Your task to perform on an android device: toggle pop-ups in chrome Image 0: 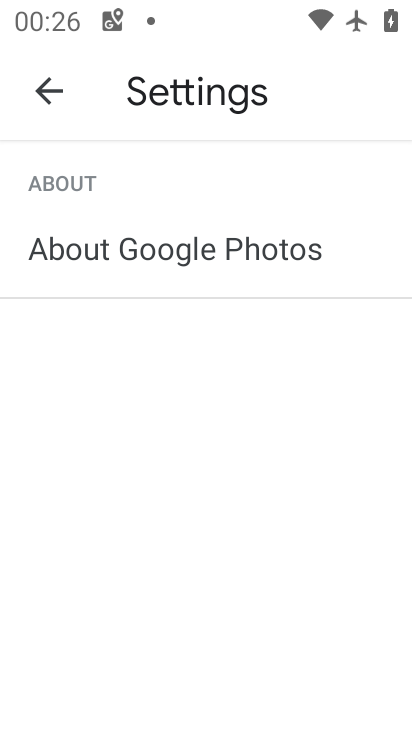
Step 0: press home button
Your task to perform on an android device: toggle pop-ups in chrome Image 1: 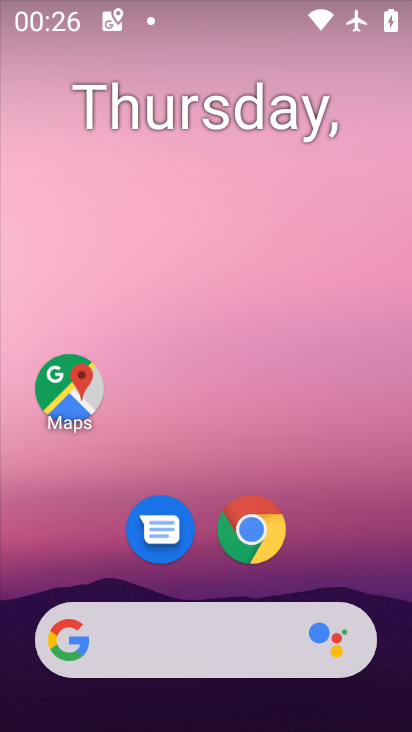
Step 1: click (256, 527)
Your task to perform on an android device: toggle pop-ups in chrome Image 2: 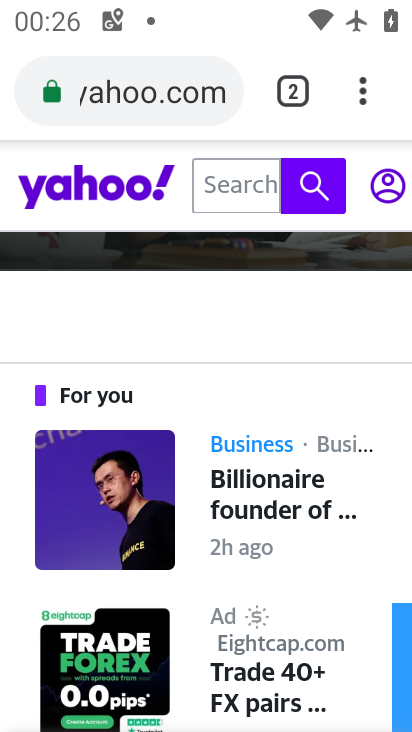
Step 2: click (359, 99)
Your task to perform on an android device: toggle pop-ups in chrome Image 3: 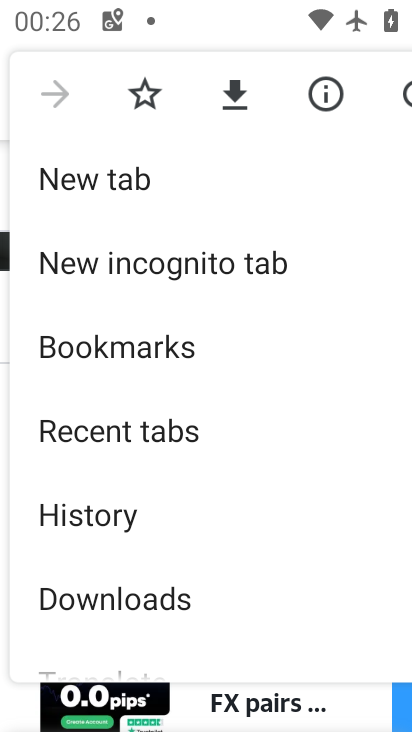
Step 3: drag from (247, 568) to (271, 215)
Your task to perform on an android device: toggle pop-ups in chrome Image 4: 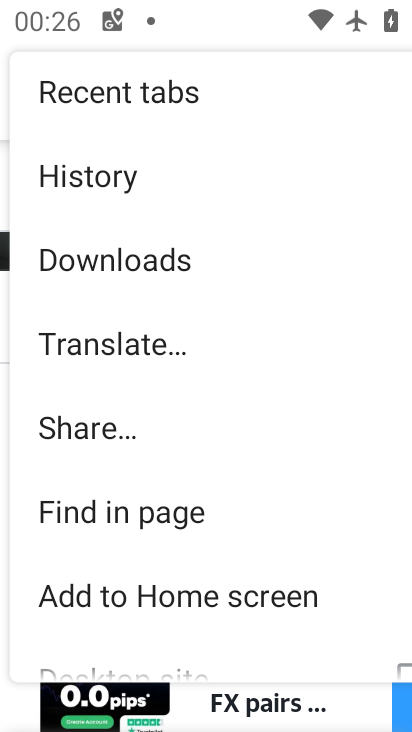
Step 4: drag from (300, 557) to (289, 223)
Your task to perform on an android device: toggle pop-ups in chrome Image 5: 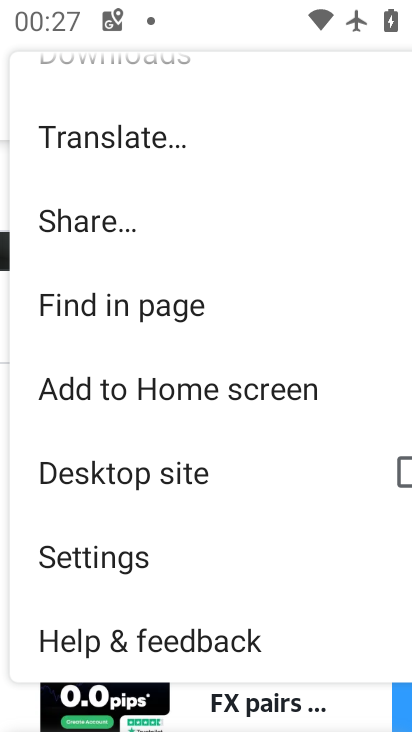
Step 5: click (115, 557)
Your task to perform on an android device: toggle pop-ups in chrome Image 6: 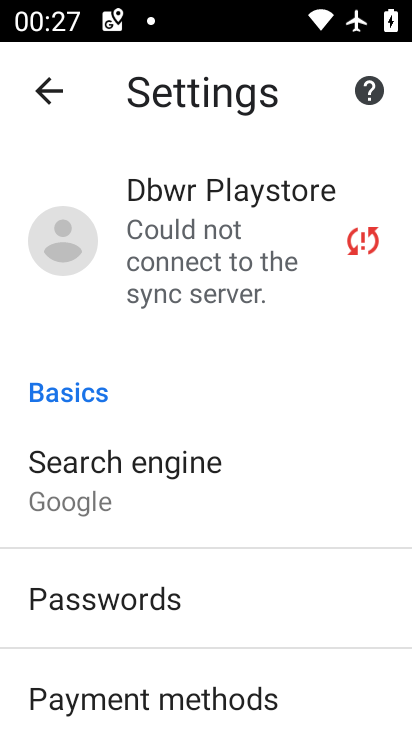
Step 6: drag from (264, 644) to (256, 255)
Your task to perform on an android device: toggle pop-ups in chrome Image 7: 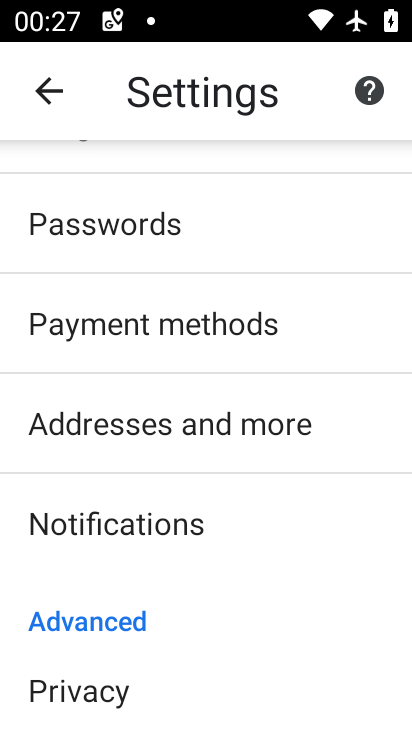
Step 7: drag from (294, 612) to (327, 247)
Your task to perform on an android device: toggle pop-ups in chrome Image 8: 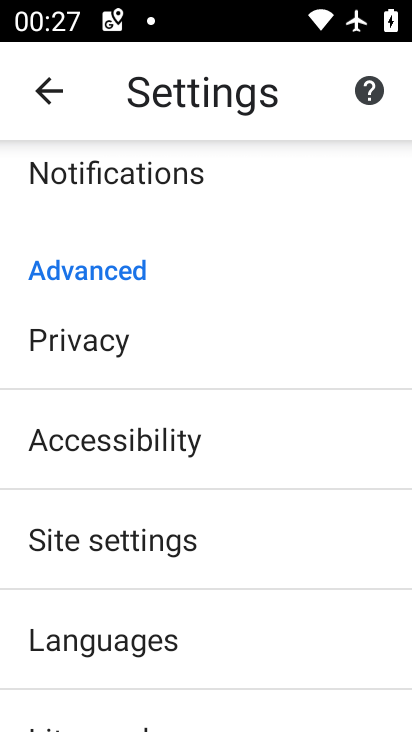
Step 8: click (111, 548)
Your task to perform on an android device: toggle pop-ups in chrome Image 9: 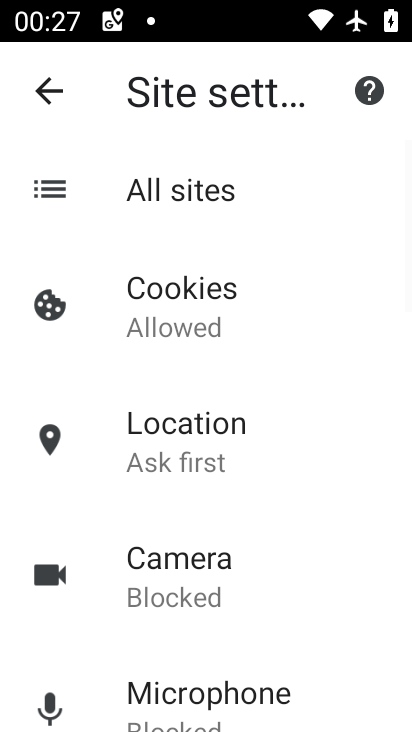
Step 9: drag from (309, 674) to (272, 270)
Your task to perform on an android device: toggle pop-ups in chrome Image 10: 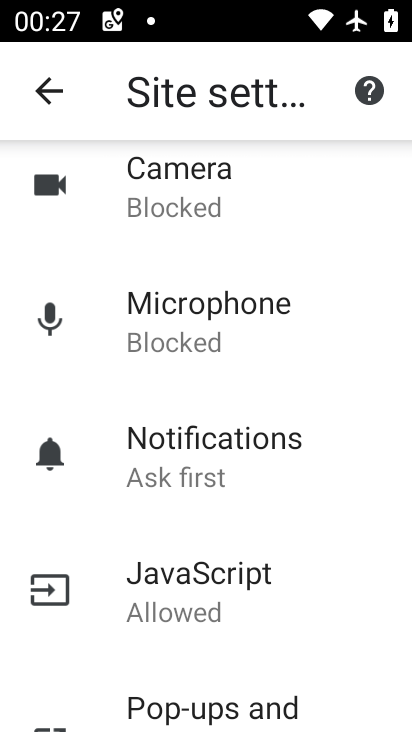
Step 10: drag from (301, 592) to (314, 213)
Your task to perform on an android device: toggle pop-ups in chrome Image 11: 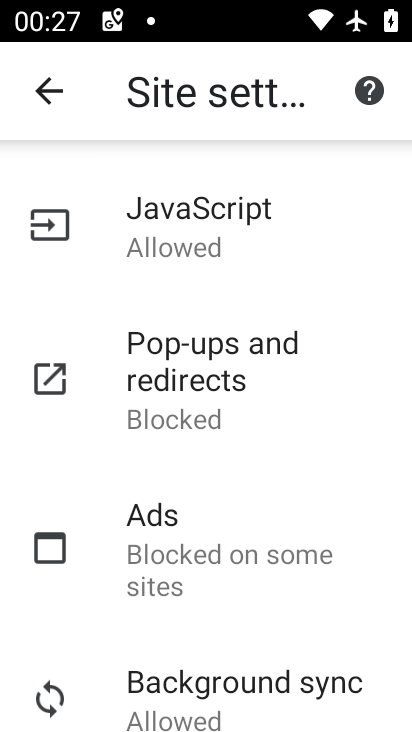
Step 11: click (169, 378)
Your task to perform on an android device: toggle pop-ups in chrome Image 12: 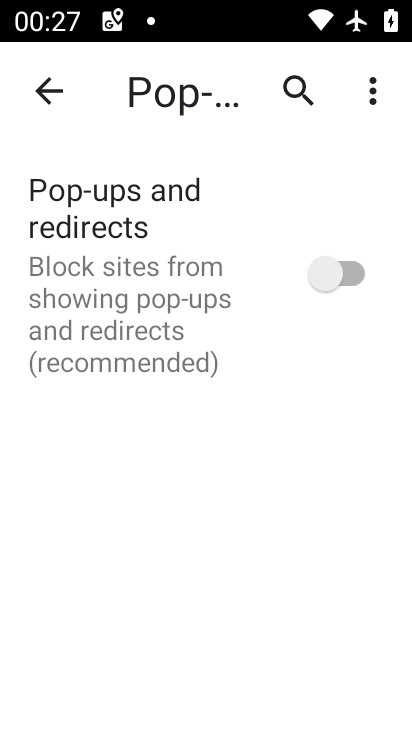
Step 12: click (355, 269)
Your task to perform on an android device: toggle pop-ups in chrome Image 13: 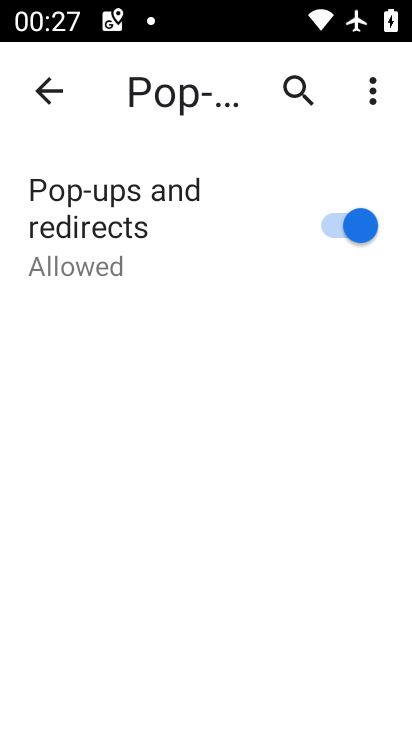
Step 13: task complete